Your task to perform on an android device: Search for sushi restaurants on Maps Image 0: 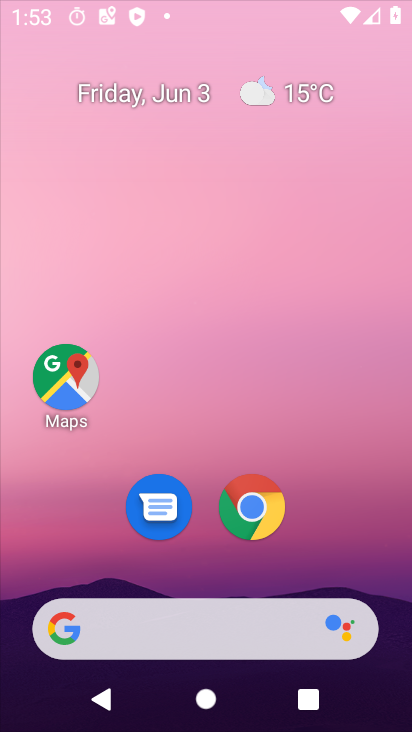
Step 0: click (273, 75)
Your task to perform on an android device: Search for sushi restaurants on Maps Image 1: 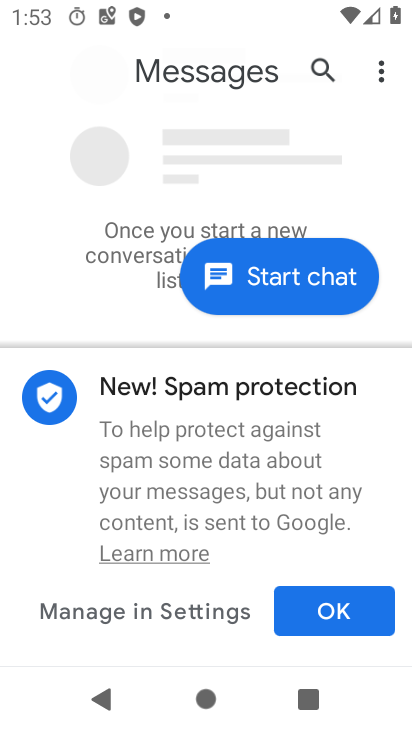
Step 1: press home button
Your task to perform on an android device: Search for sushi restaurants on Maps Image 2: 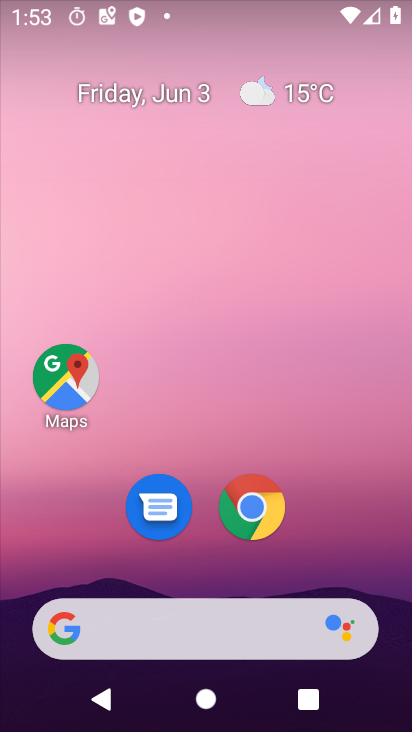
Step 2: drag from (383, 605) to (282, 75)
Your task to perform on an android device: Search for sushi restaurants on Maps Image 3: 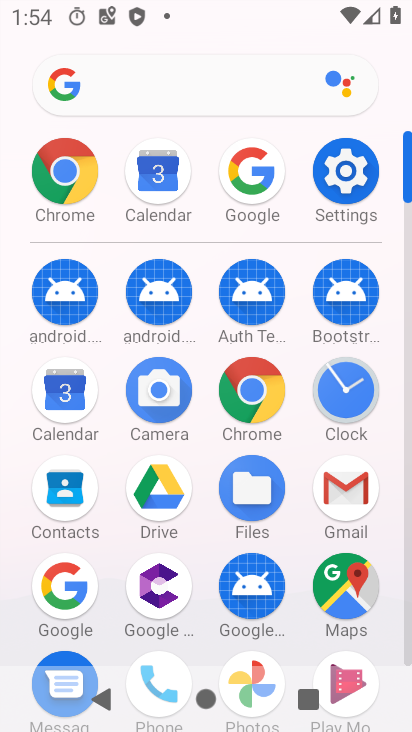
Step 3: click (334, 580)
Your task to perform on an android device: Search for sushi restaurants on Maps Image 4: 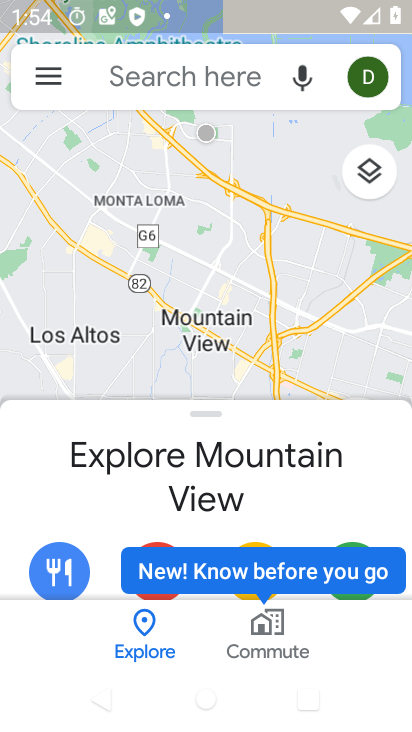
Step 4: click (175, 75)
Your task to perform on an android device: Search for sushi restaurants on Maps Image 5: 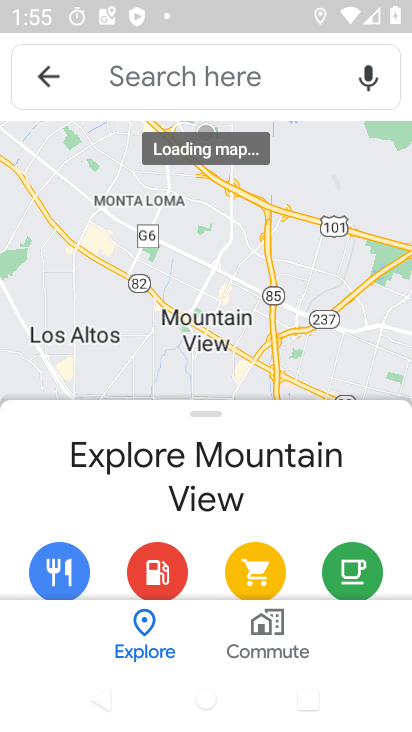
Step 5: click (175, 75)
Your task to perform on an android device: Search for sushi restaurants on Maps Image 6: 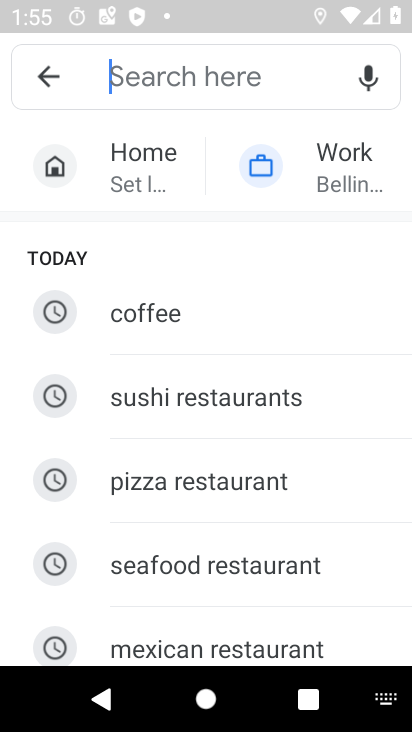
Step 6: click (236, 395)
Your task to perform on an android device: Search for sushi restaurants on Maps Image 7: 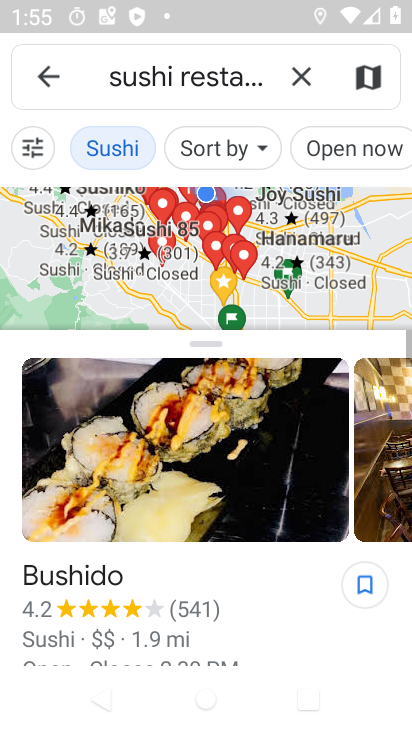
Step 7: task complete